Your task to perform on an android device: see sites visited before in the chrome app Image 0: 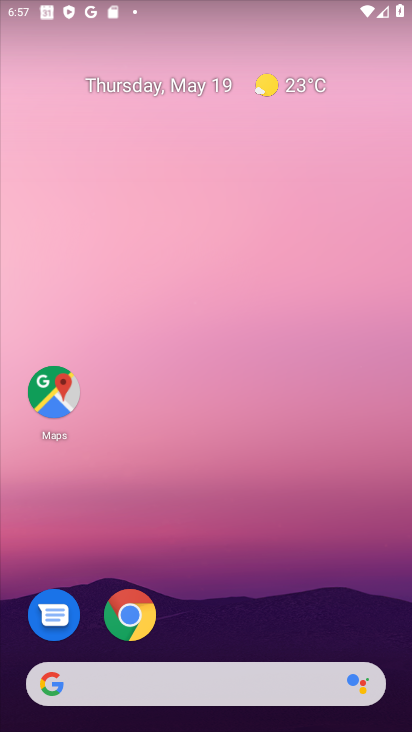
Step 0: drag from (313, 599) to (319, 2)
Your task to perform on an android device: see sites visited before in the chrome app Image 1: 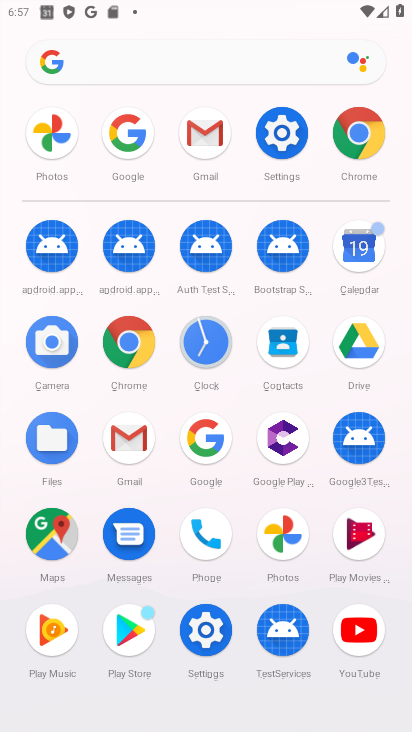
Step 1: click (356, 129)
Your task to perform on an android device: see sites visited before in the chrome app Image 2: 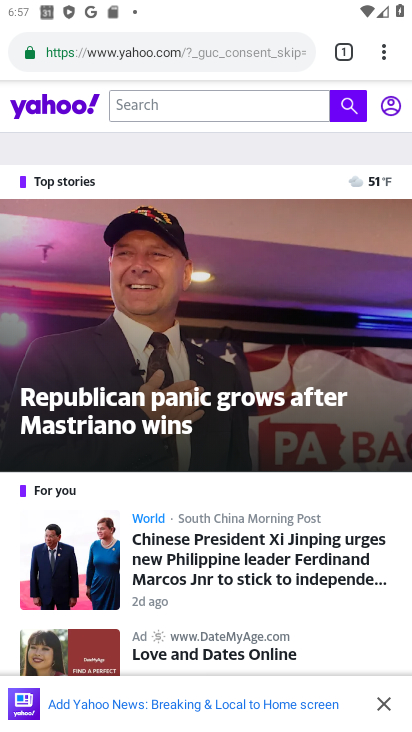
Step 2: press back button
Your task to perform on an android device: see sites visited before in the chrome app Image 3: 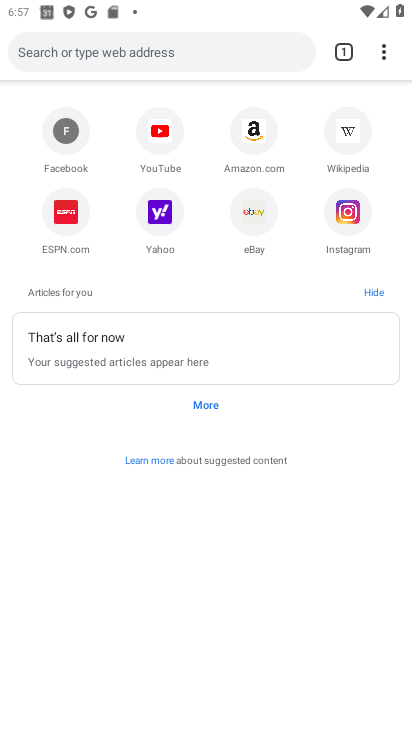
Step 3: click (385, 41)
Your task to perform on an android device: see sites visited before in the chrome app Image 4: 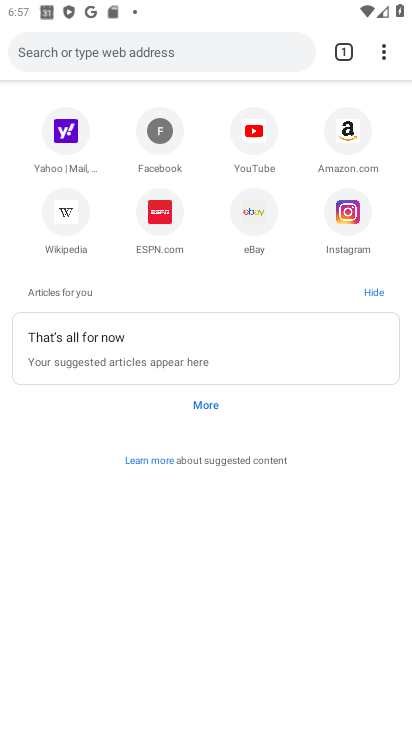
Step 4: click (379, 48)
Your task to perform on an android device: see sites visited before in the chrome app Image 5: 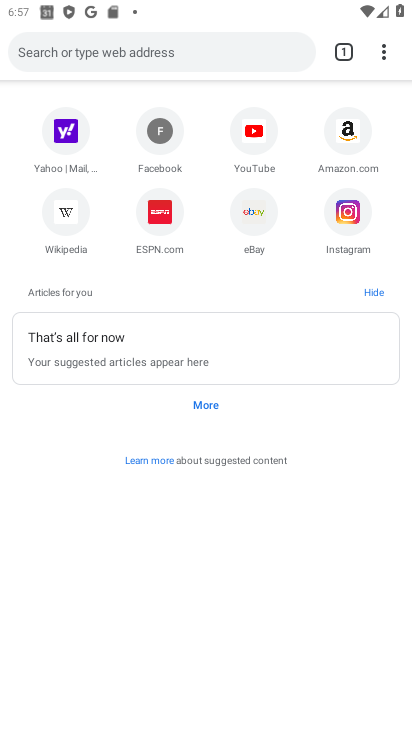
Step 5: click (380, 47)
Your task to perform on an android device: see sites visited before in the chrome app Image 6: 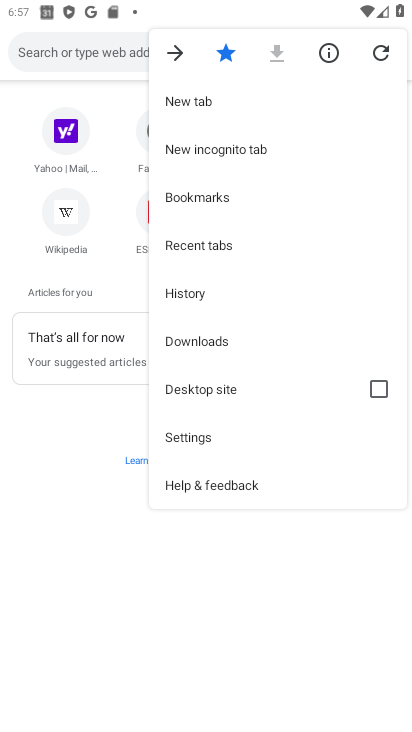
Step 6: click (206, 288)
Your task to perform on an android device: see sites visited before in the chrome app Image 7: 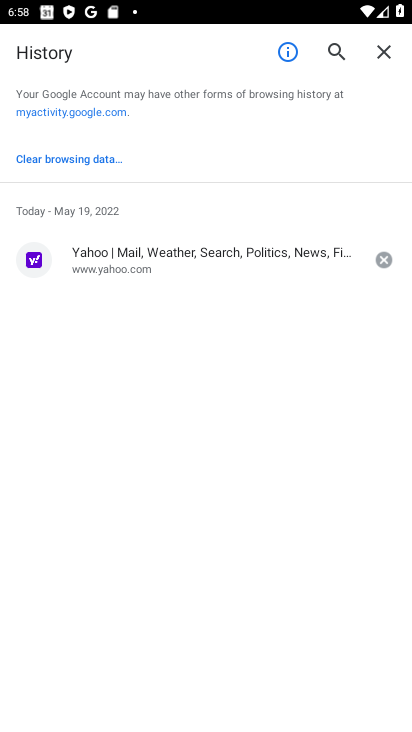
Step 7: click (205, 261)
Your task to perform on an android device: see sites visited before in the chrome app Image 8: 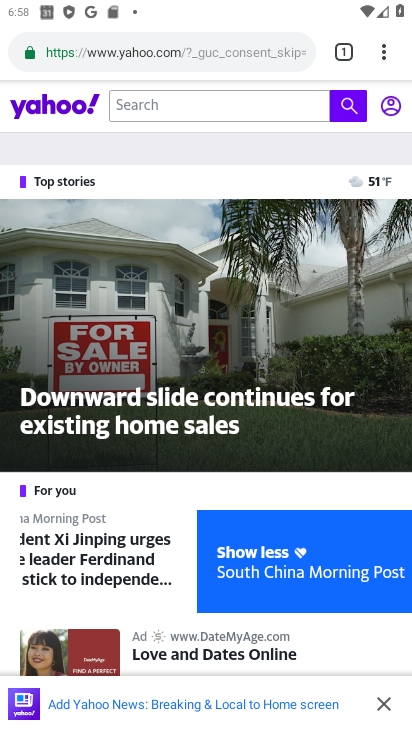
Step 8: task complete